Your task to perform on an android device: Open CNN.com Image 0: 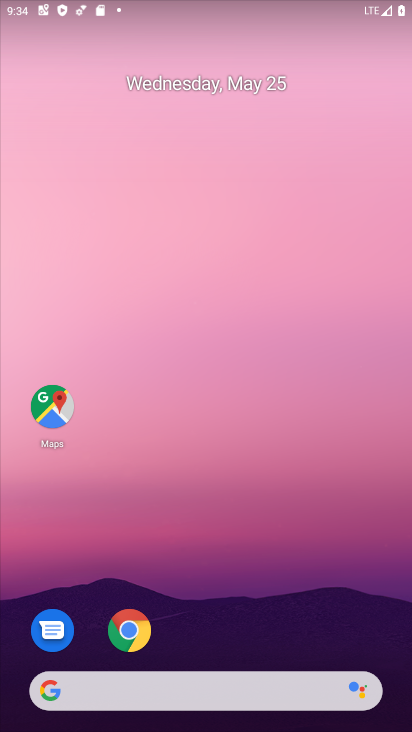
Step 0: click (134, 640)
Your task to perform on an android device: Open CNN.com Image 1: 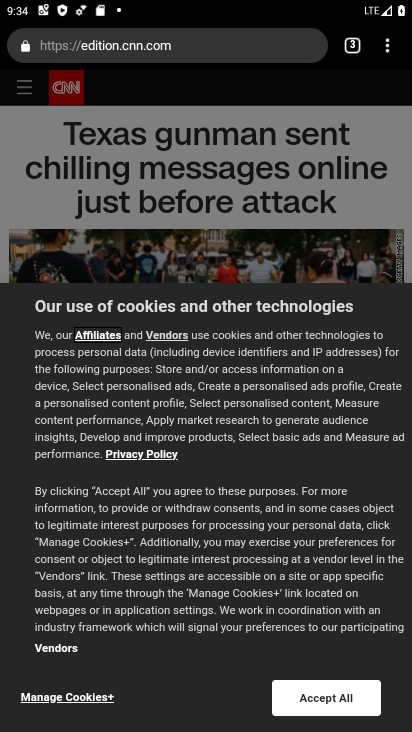
Step 1: click (275, 190)
Your task to perform on an android device: Open CNN.com Image 2: 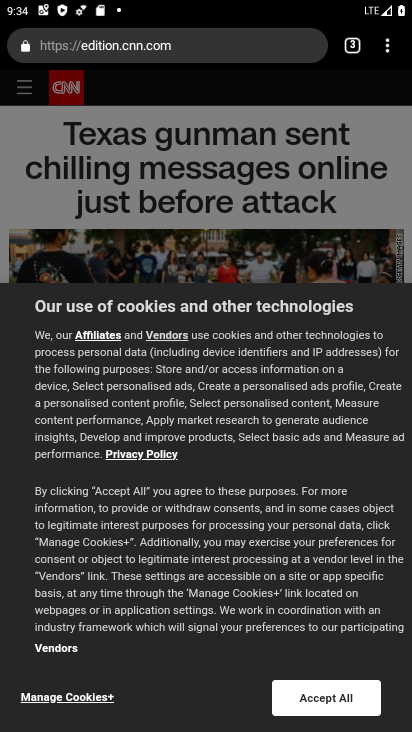
Step 2: click (332, 687)
Your task to perform on an android device: Open CNN.com Image 3: 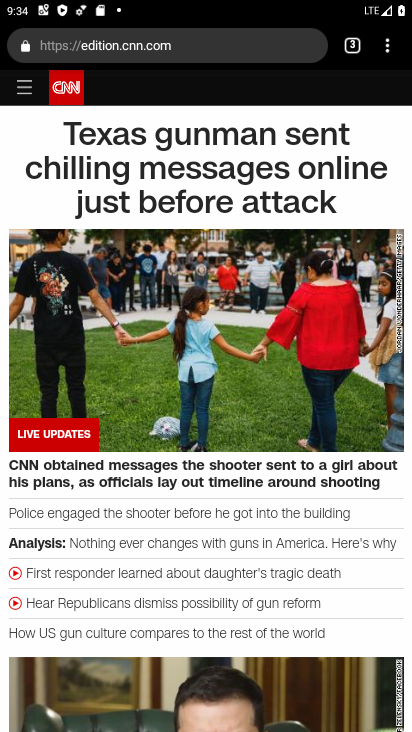
Step 3: task complete